Your task to perform on an android device: open chrome privacy settings Image 0: 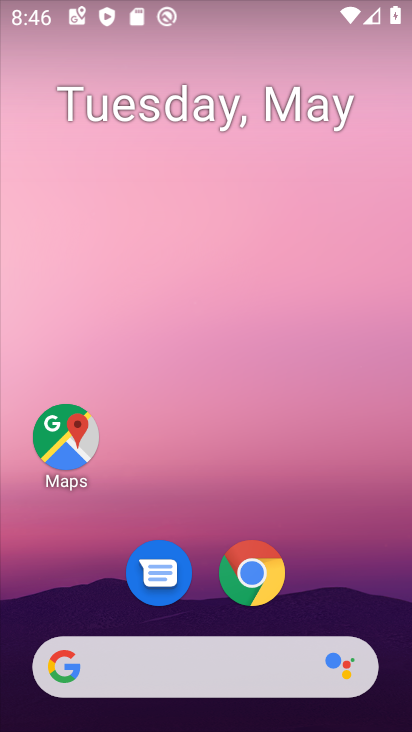
Step 0: drag from (231, 629) to (144, 56)
Your task to perform on an android device: open chrome privacy settings Image 1: 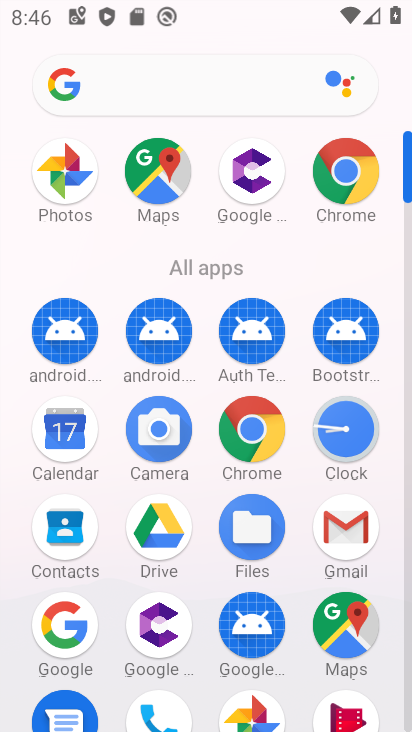
Step 1: click (346, 185)
Your task to perform on an android device: open chrome privacy settings Image 2: 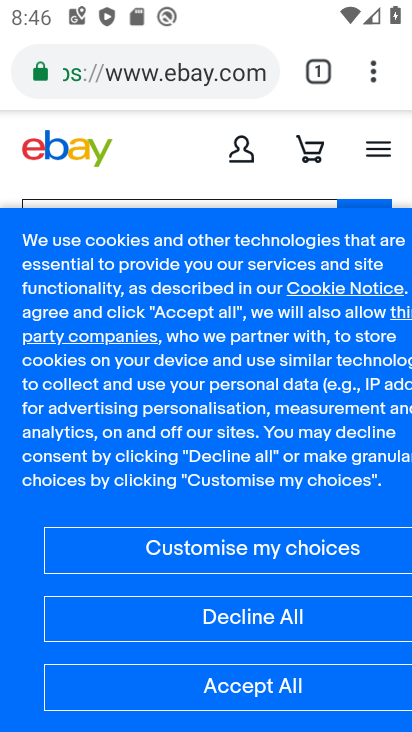
Step 2: drag from (363, 74) to (122, 564)
Your task to perform on an android device: open chrome privacy settings Image 3: 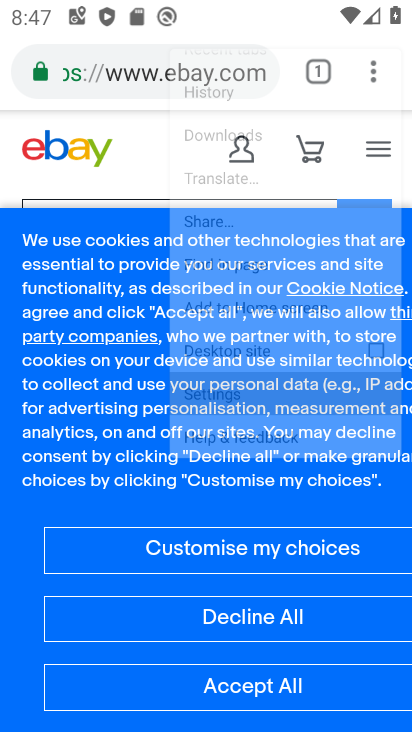
Step 3: click (120, 564)
Your task to perform on an android device: open chrome privacy settings Image 4: 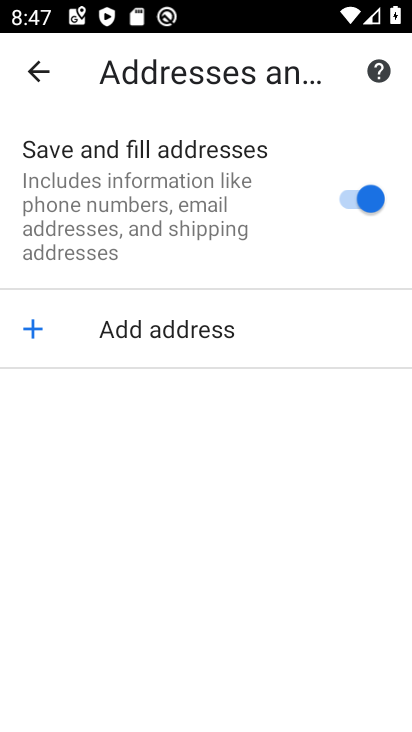
Step 4: click (29, 53)
Your task to perform on an android device: open chrome privacy settings Image 5: 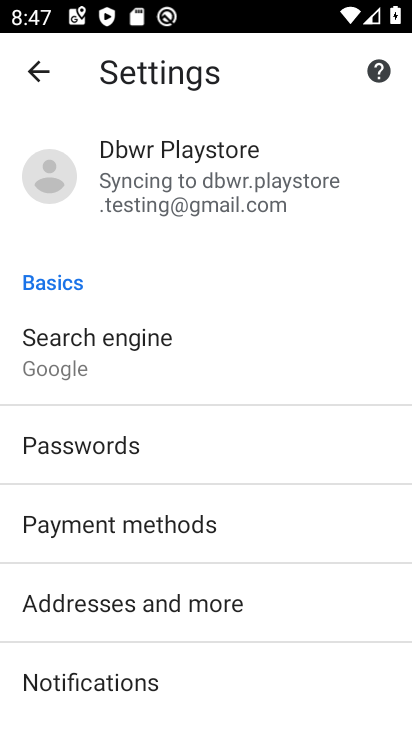
Step 5: drag from (151, 592) to (96, 323)
Your task to perform on an android device: open chrome privacy settings Image 6: 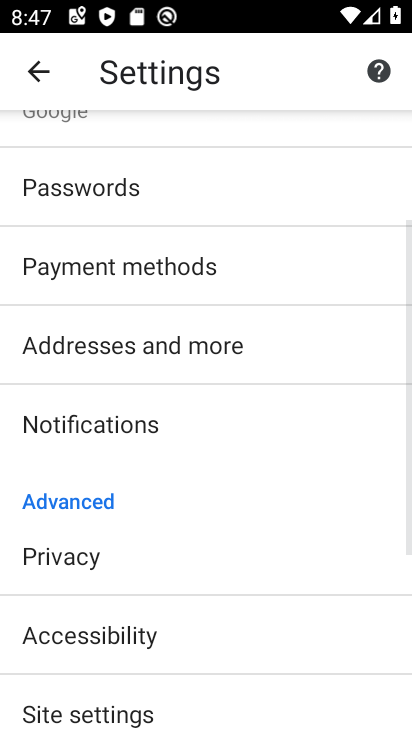
Step 6: drag from (124, 532) to (123, 225)
Your task to perform on an android device: open chrome privacy settings Image 7: 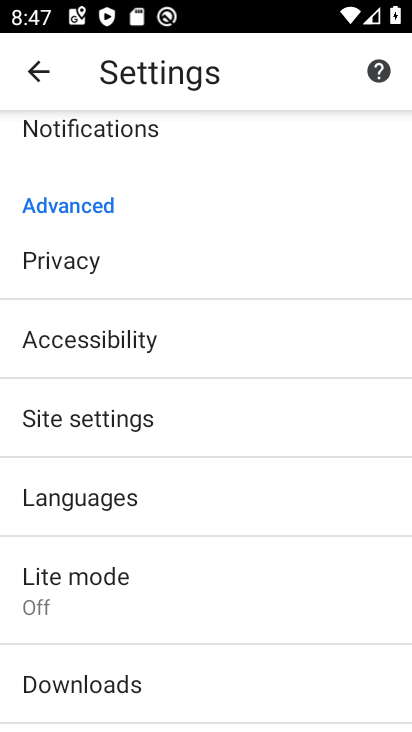
Step 7: click (57, 256)
Your task to perform on an android device: open chrome privacy settings Image 8: 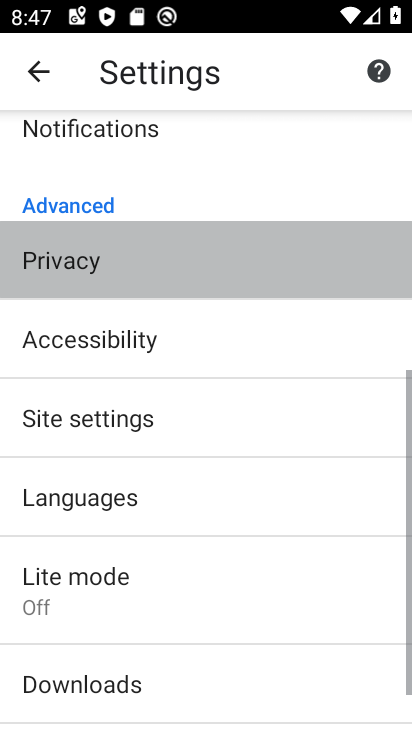
Step 8: click (53, 258)
Your task to perform on an android device: open chrome privacy settings Image 9: 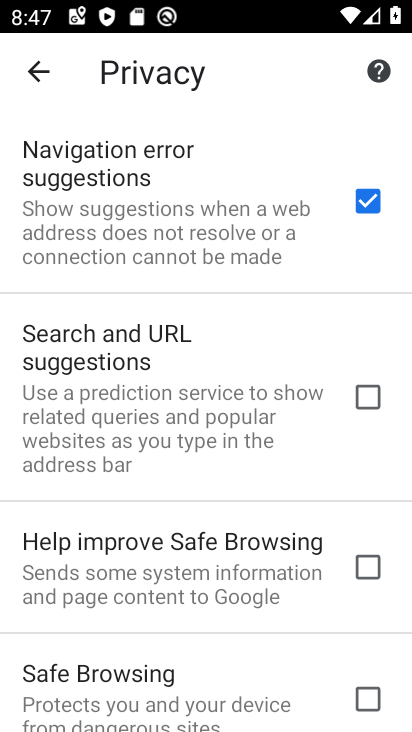
Step 9: task complete